Your task to perform on an android device: View the shopping cart on amazon. Image 0: 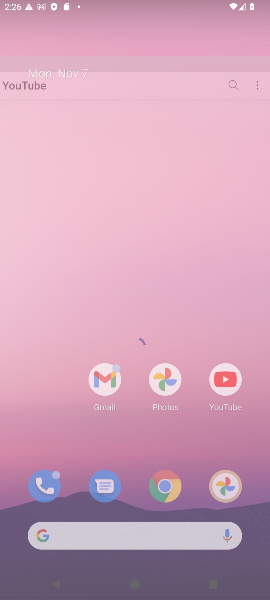
Step 0: press home button
Your task to perform on an android device: View the shopping cart on amazon. Image 1: 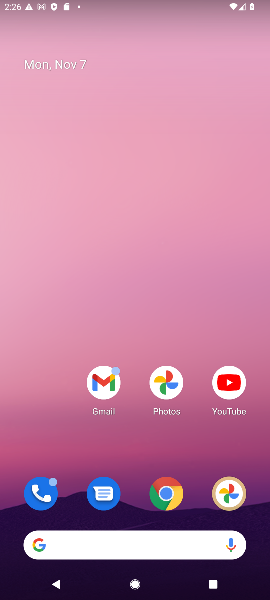
Step 1: drag from (135, 473) to (172, 4)
Your task to perform on an android device: View the shopping cart on amazon. Image 2: 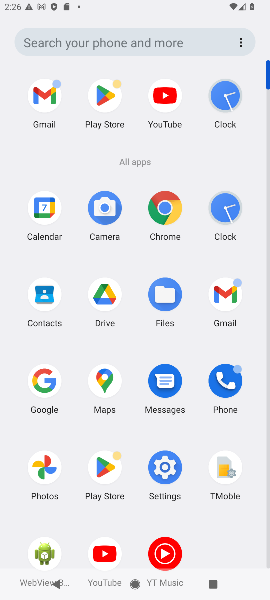
Step 2: click (164, 204)
Your task to perform on an android device: View the shopping cart on amazon. Image 3: 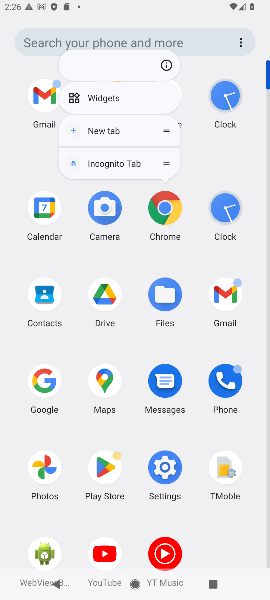
Step 3: click (164, 203)
Your task to perform on an android device: View the shopping cart on amazon. Image 4: 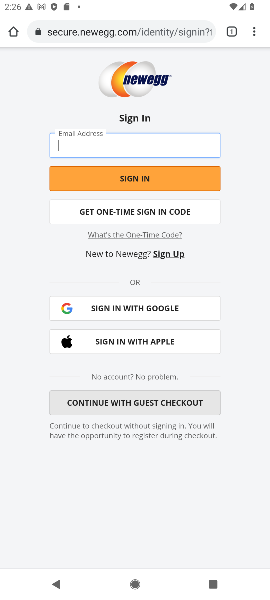
Step 4: click (83, 29)
Your task to perform on an android device: View the shopping cart on amazon. Image 5: 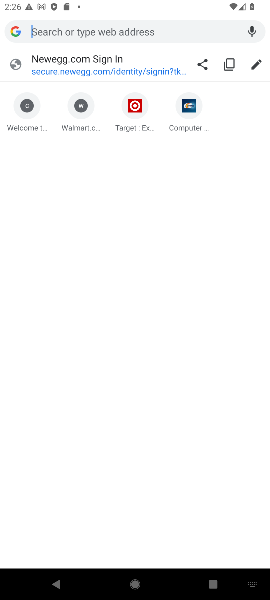
Step 5: type "amazon"
Your task to perform on an android device: View the shopping cart on amazon. Image 6: 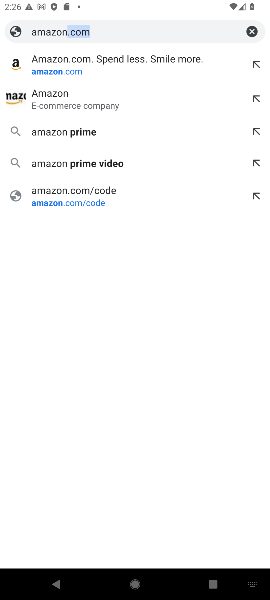
Step 6: click (89, 65)
Your task to perform on an android device: View the shopping cart on amazon. Image 7: 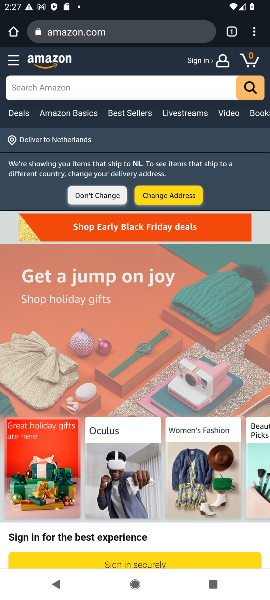
Step 7: click (253, 58)
Your task to perform on an android device: View the shopping cart on amazon. Image 8: 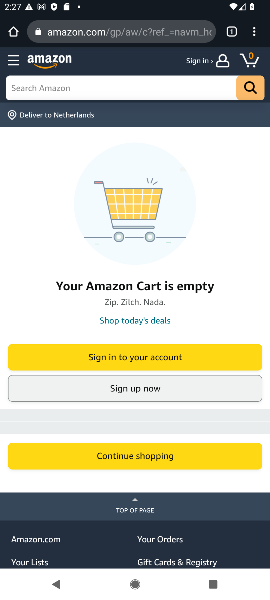
Step 8: task complete